Your task to perform on an android device: snooze an email in the gmail app Image 0: 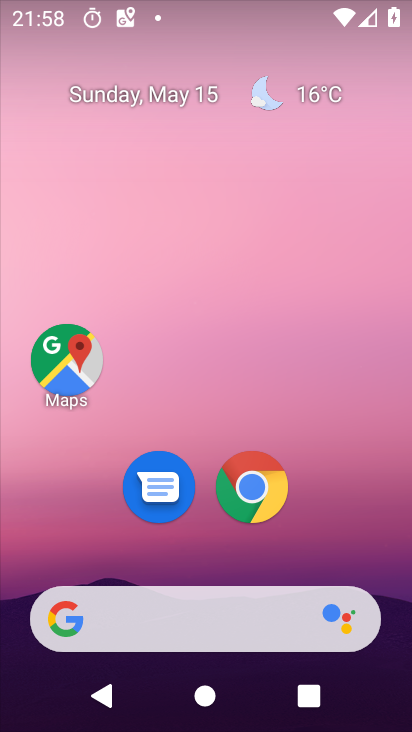
Step 0: drag from (405, 489) to (403, 178)
Your task to perform on an android device: snooze an email in the gmail app Image 1: 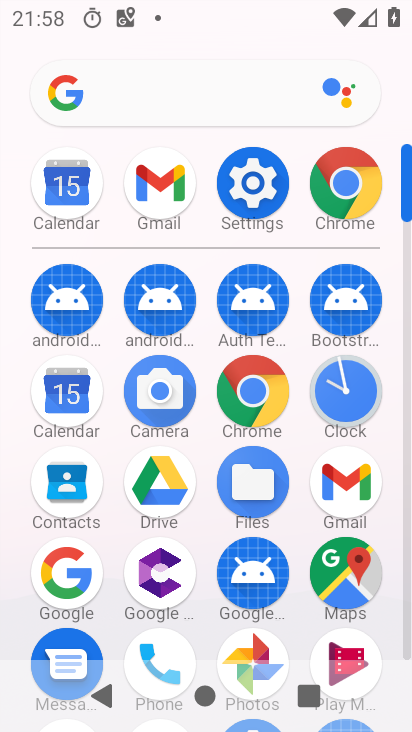
Step 1: click (343, 475)
Your task to perform on an android device: snooze an email in the gmail app Image 2: 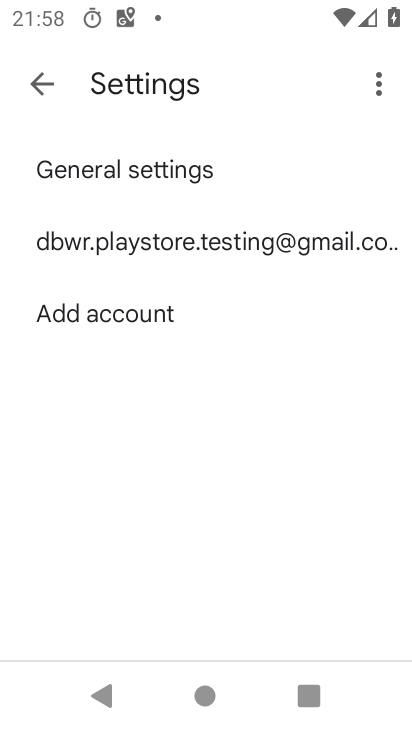
Step 2: click (91, 170)
Your task to perform on an android device: snooze an email in the gmail app Image 3: 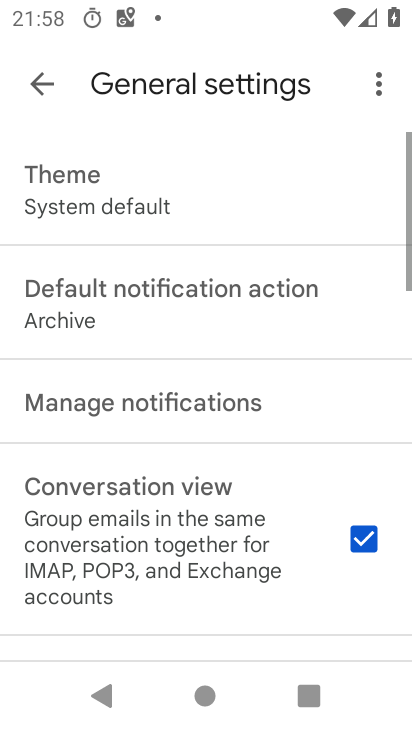
Step 3: click (38, 91)
Your task to perform on an android device: snooze an email in the gmail app Image 4: 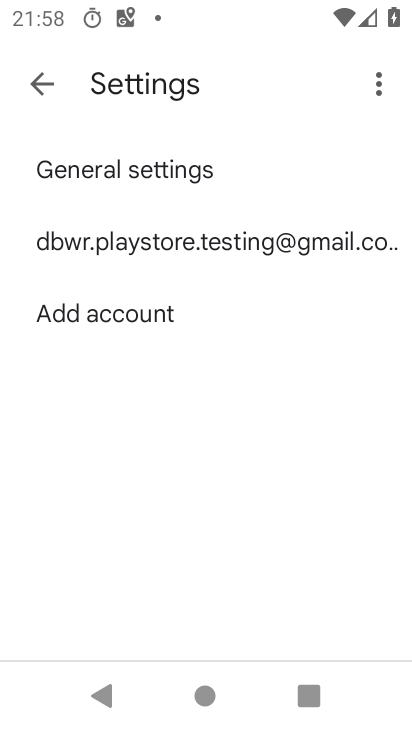
Step 4: click (44, 85)
Your task to perform on an android device: snooze an email in the gmail app Image 5: 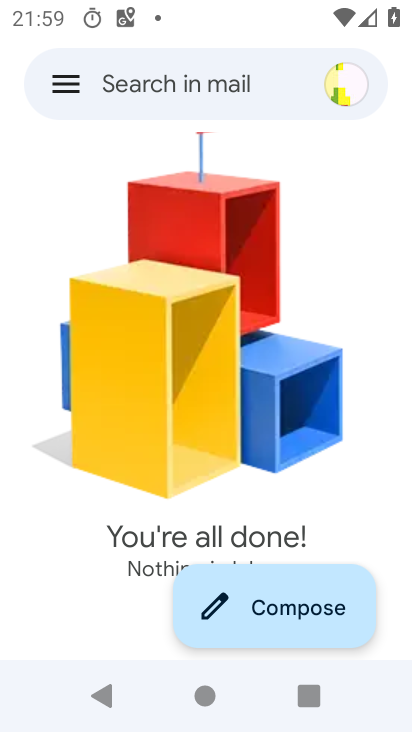
Step 5: click (55, 80)
Your task to perform on an android device: snooze an email in the gmail app Image 6: 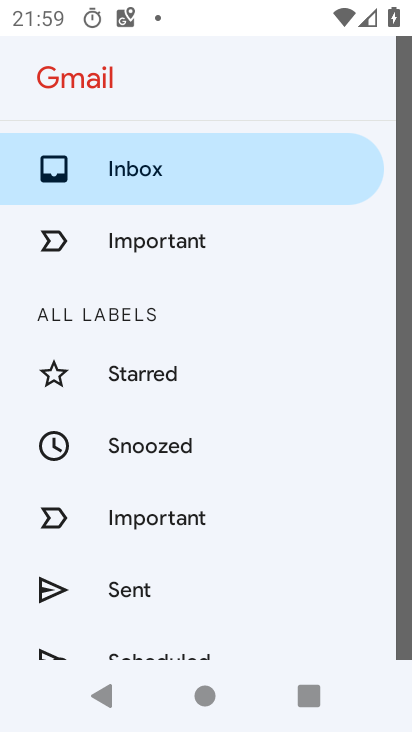
Step 6: click (124, 162)
Your task to perform on an android device: snooze an email in the gmail app Image 7: 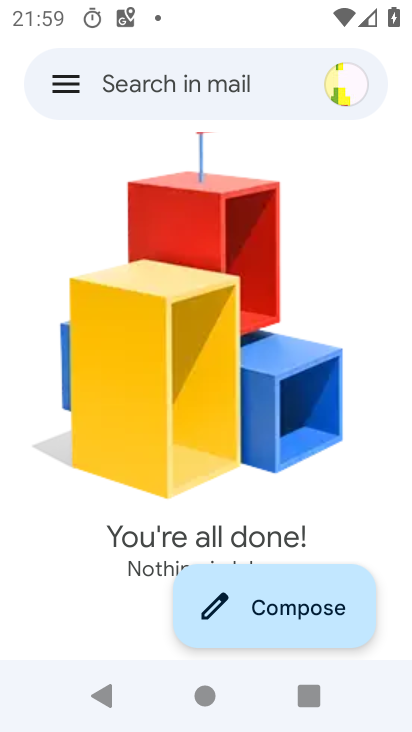
Step 7: task complete